Your task to perform on an android device: clear all cookies in the chrome app Image 0: 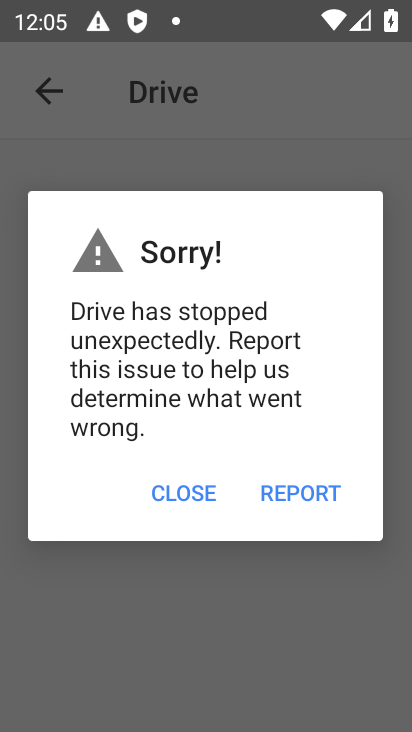
Step 0: press home button
Your task to perform on an android device: clear all cookies in the chrome app Image 1: 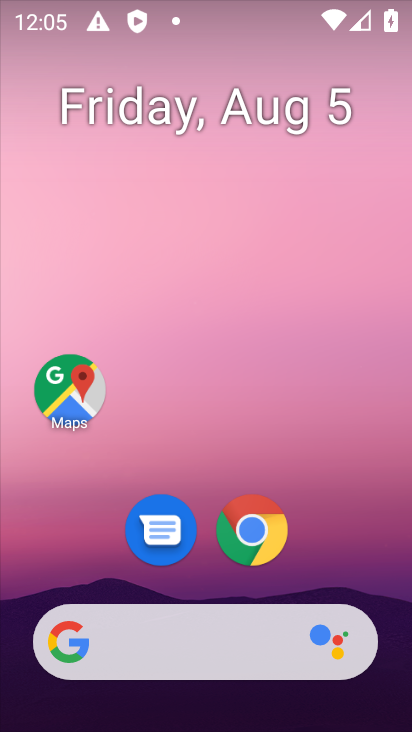
Step 1: click (231, 535)
Your task to perform on an android device: clear all cookies in the chrome app Image 2: 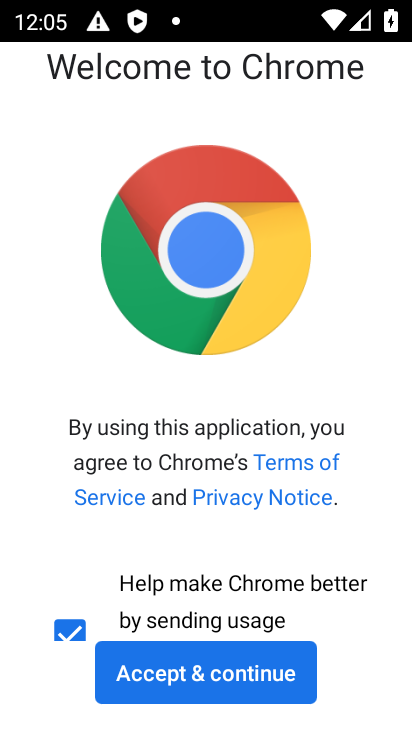
Step 2: click (163, 675)
Your task to perform on an android device: clear all cookies in the chrome app Image 3: 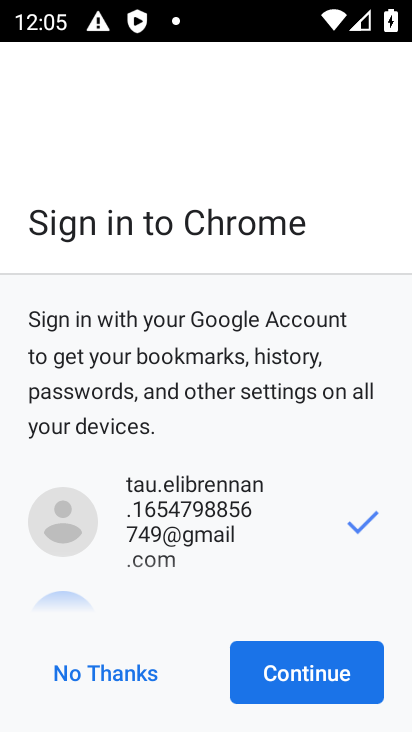
Step 3: click (128, 677)
Your task to perform on an android device: clear all cookies in the chrome app Image 4: 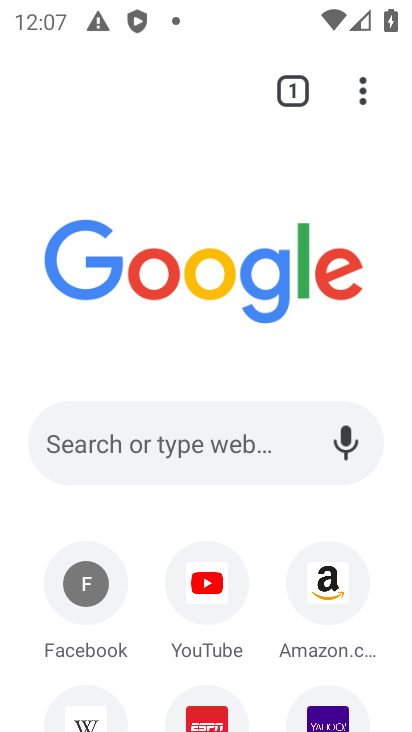
Step 4: press home button
Your task to perform on an android device: clear all cookies in the chrome app Image 5: 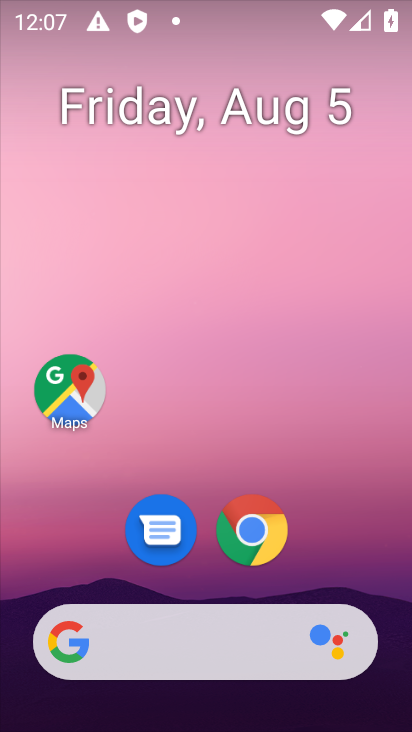
Step 5: click (251, 528)
Your task to perform on an android device: clear all cookies in the chrome app Image 6: 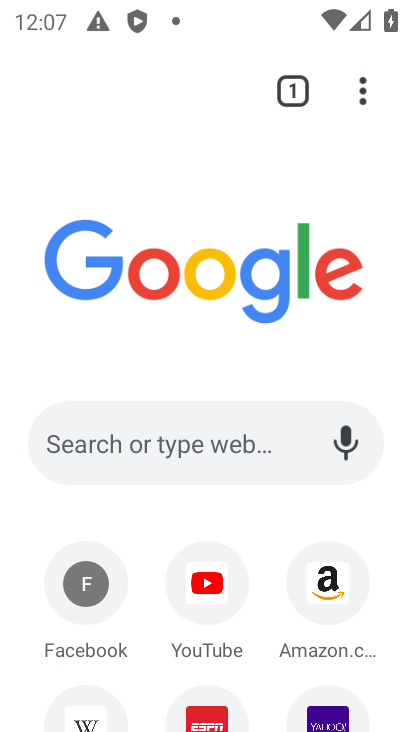
Step 6: click (366, 90)
Your task to perform on an android device: clear all cookies in the chrome app Image 7: 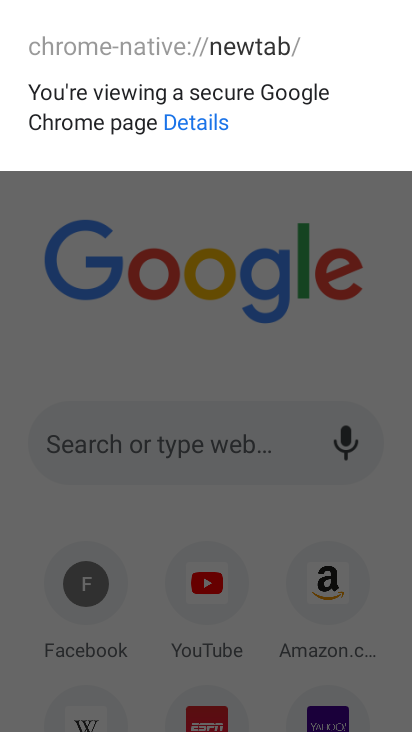
Step 7: press home button
Your task to perform on an android device: clear all cookies in the chrome app Image 8: 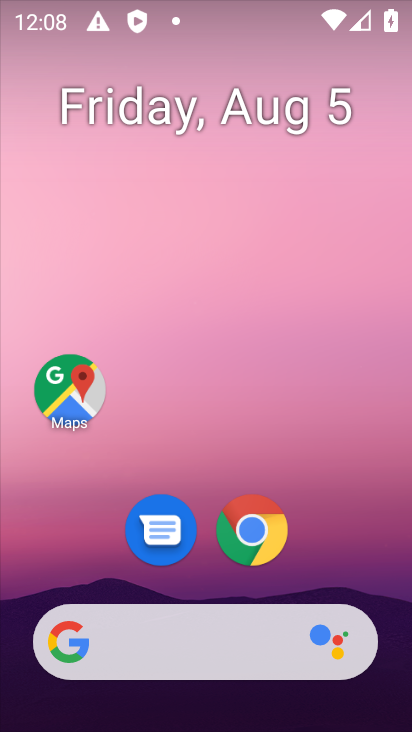
Step 8: click (262, 526)
Your task to perform on an android device: clear all cookies in the chrome app Image 9: 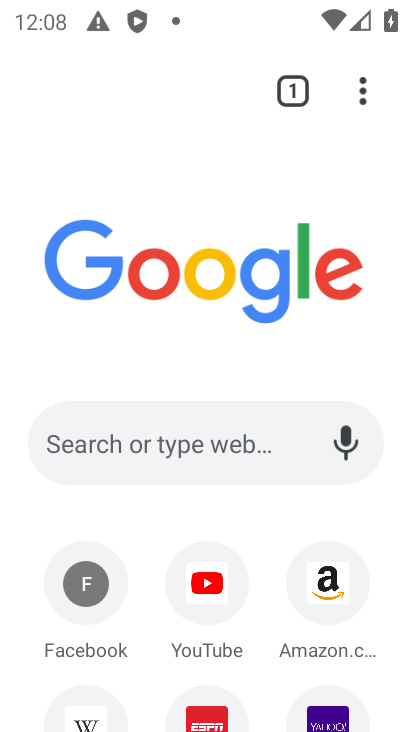
Step 9: click (361, 85)
Your task to perform on an android device: clear all cookies in the chrome app Image 10: 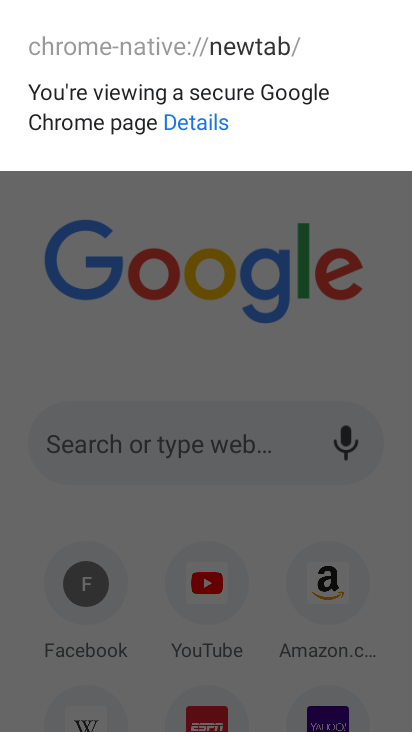
Step 10: press home button
Your task to perform on an android device: clear all cookies in the chrome app Image 11: 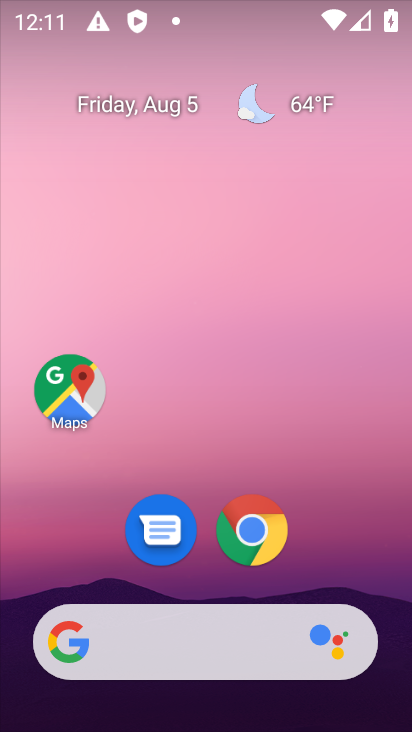
Step 11: click (237, 546)
Your task to perform on an android device: clear all cookies in the chrome app Image 12: 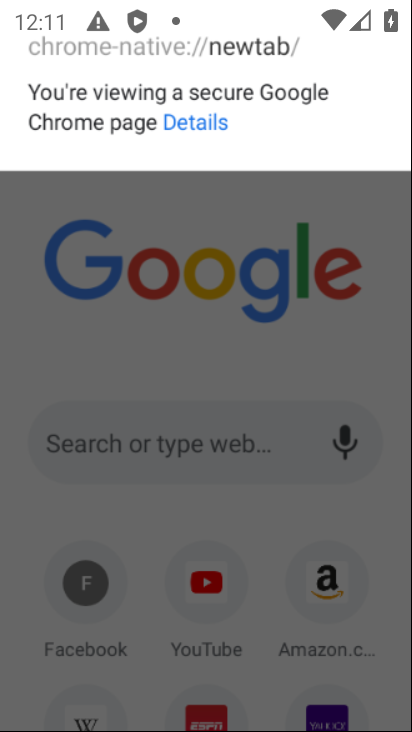
Step 12: click (242, 532)
Your task to perform on an android device: clear all cookies in the chrome app Image 13: 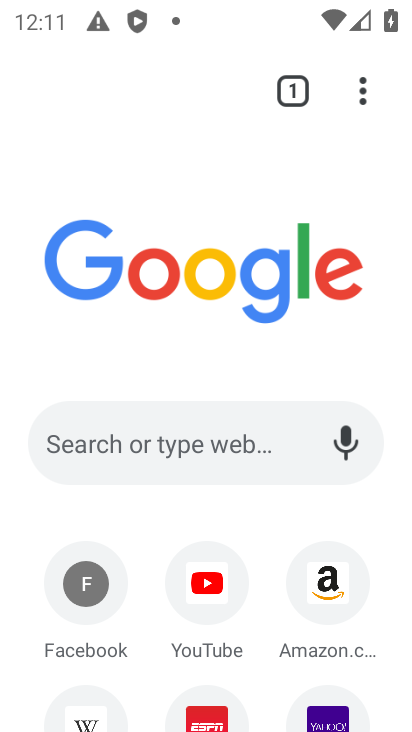
Step 13: click (365, 87)
Your task to perform on an android device: clear all cookies in the chrome app Image 14: 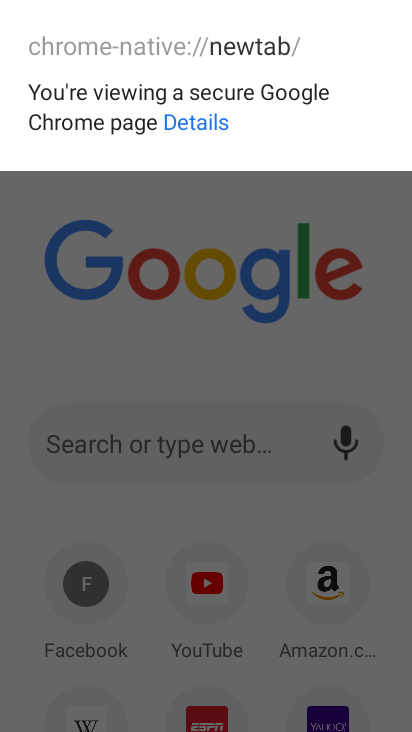
Step 14: click (351, 203)
Your task to perform on an android device: clear all cookies in the chrome app Image 15: 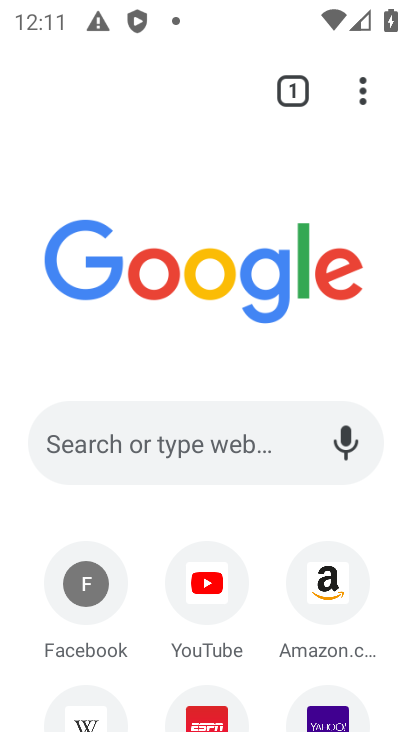
Step 15: press back button
Your task to perform on an android device: clear all cookies in the chrome app Image 16: 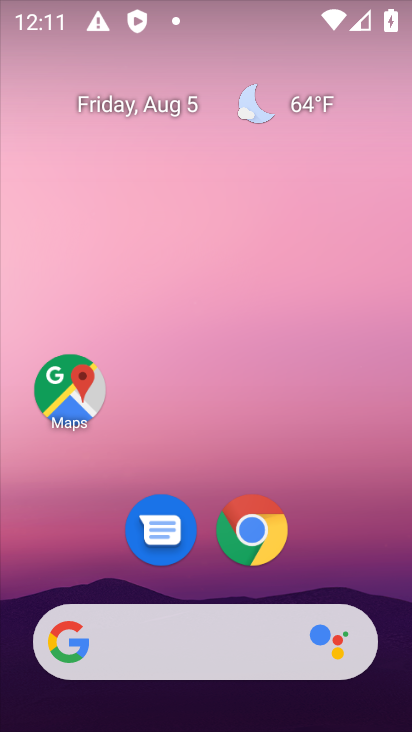
Step 16: click (246, 534)
Your task to perform on an android device: clear all cookies in the chrome app Image 17: 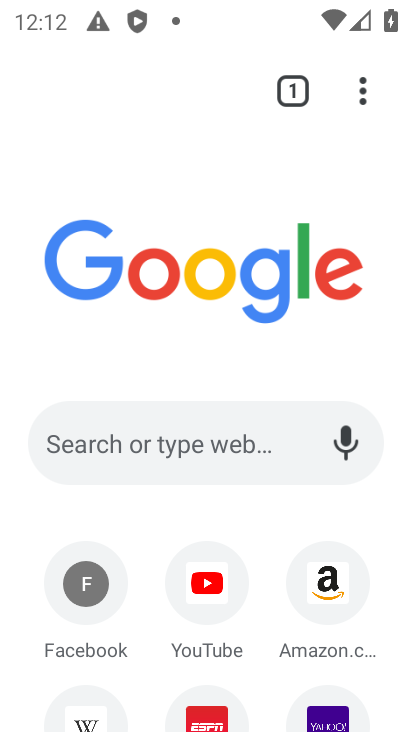
Step 17: click (363, 88)
Your task to perform on an android device: clear all cookies in the chrome app Image 18: 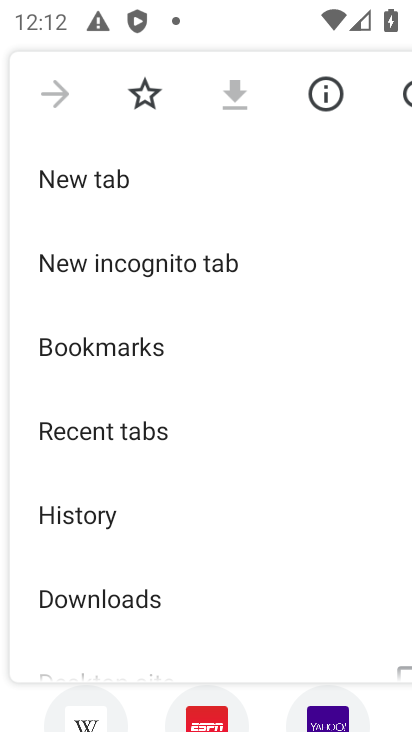
Step 18: click (103, 519)
Your task to perform on an android device: clear all cookies in the chrome app Image 19: 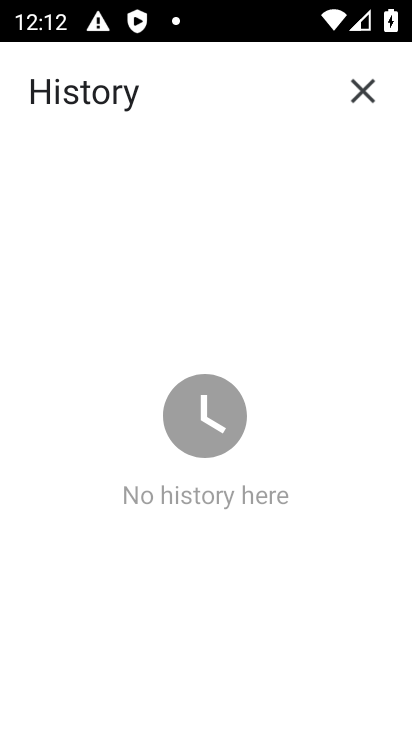
Step 19: task complete